Your task to perform on an android device: allow notifications from all sites in the chrome app Image 0: 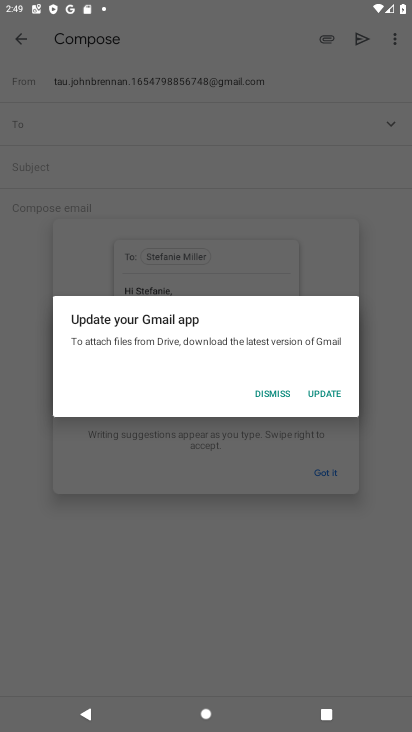
Step 0: press home button
Your task to perform on an android device: allow notifications from all sites in the chrome app Image 1: 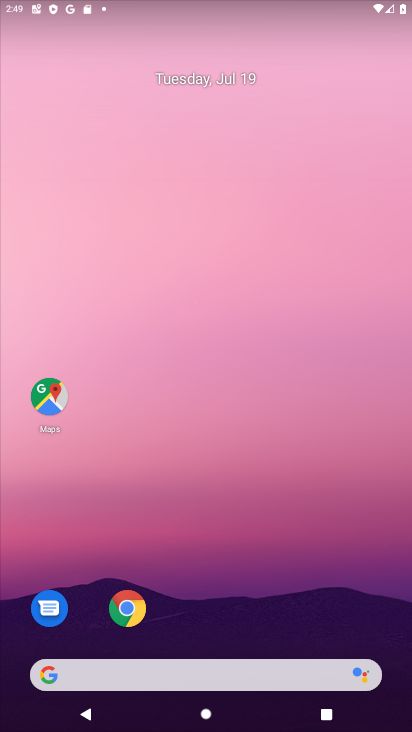
Step 1: click (133, 609)
Your task to perform on an android device: allow notifications from all sites in the chrome app Image 2: 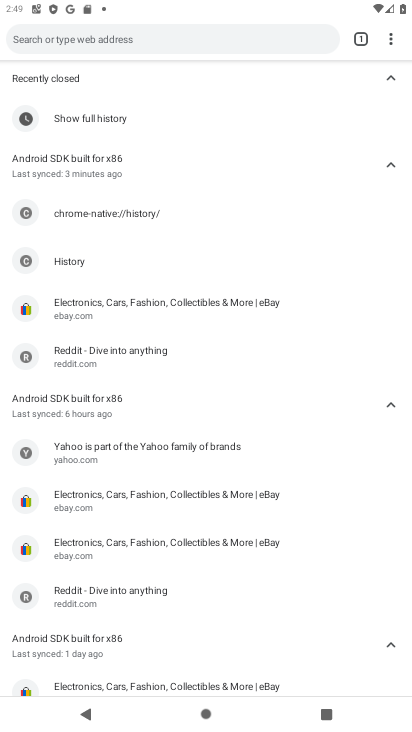
Step 2: drag from (390, 36) to (277, 343)
Your task to perform on an android device: allow notifications from all sites in the chrome app Image 3: 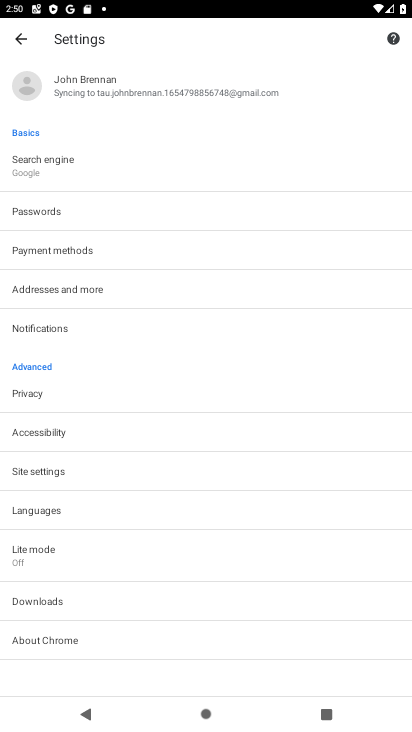
Step 3: click (54, 338)
Your task to perform on an android device: allow notifications from all sites in the chrome app Image 4: 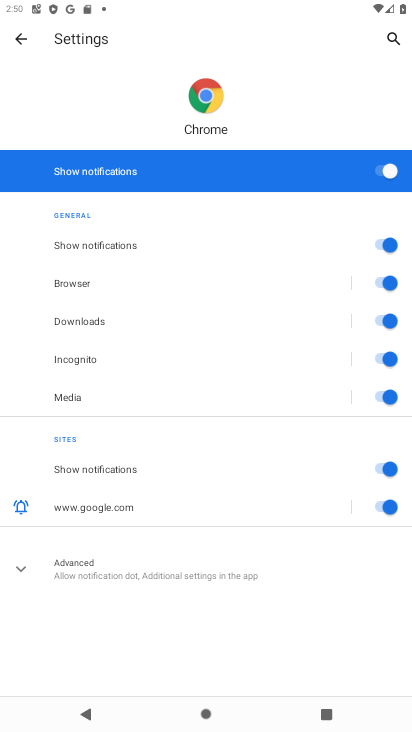
Step 4: task complete